Your task to perform on an android device: Do I have any events this weekend? Image 0: 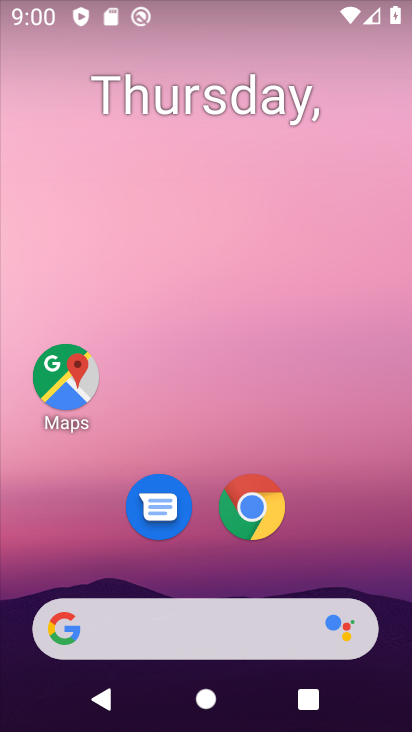
Step 0: drag from (191, 569) to (219, 44)
Your task to perform on an android device: Do I have any events this weekend? Image 1: 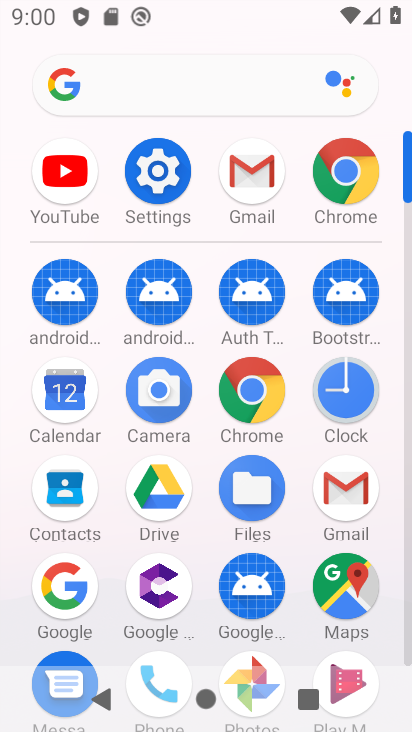
Step 1: click (49, 406)
Your task to perform on an android device: Do I have any events this weekend? Image 2: 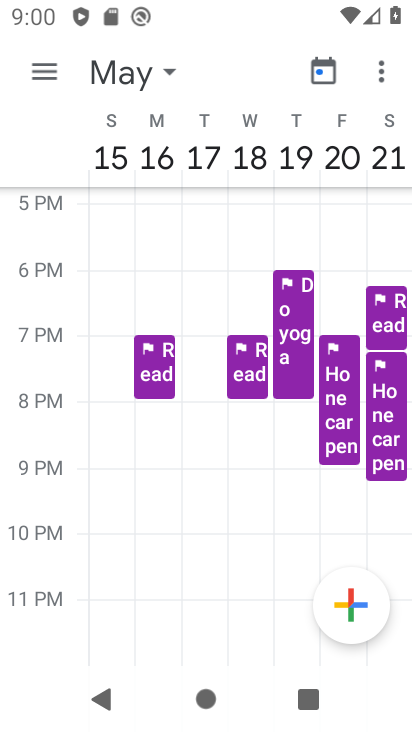
Step 2: task complete